Your task to perform on an android device: Open Yahoo.com Image 0: 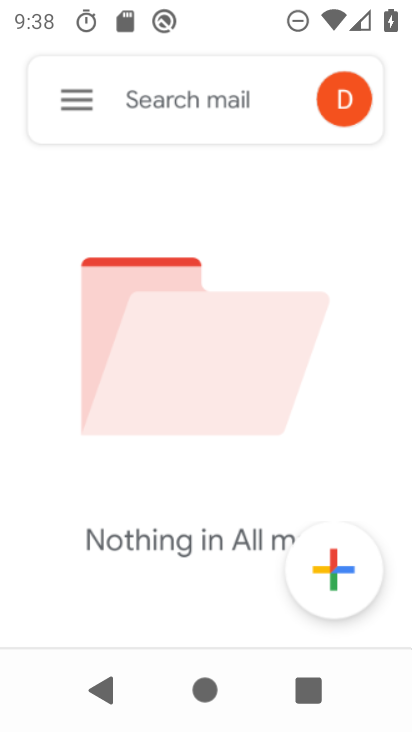
Step 0: press home button
Your task to perform on an android device: Open Yahoo.com Image 1: 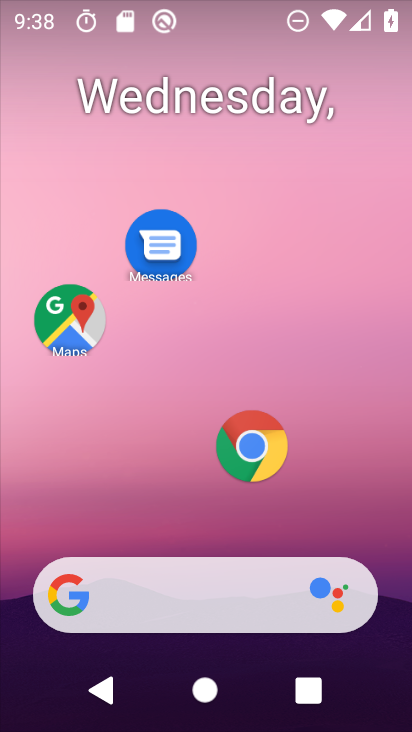
Step 1: click (242, 439)
Your task to perform on an android device: Open Yahoo.com Image 2: 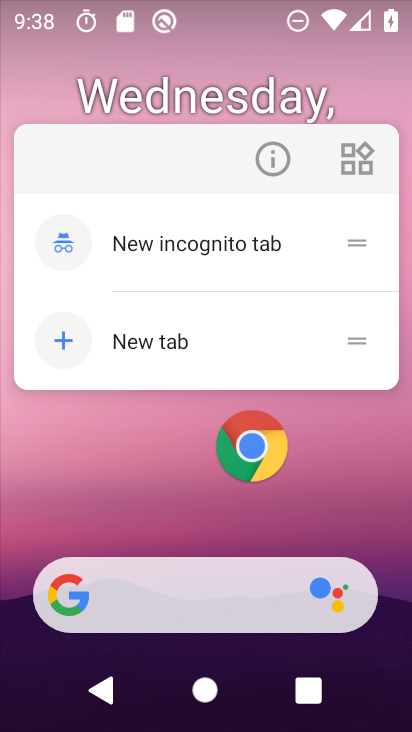
Step 2: click (254, 443)
Your task to perform on an android device: Open Yahoo.com Image 3: 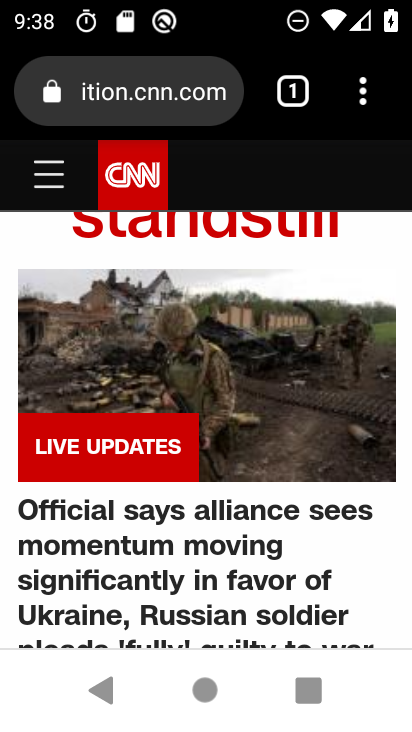
Step 3: click (299, 95)
Your task to perform on an android device: Open Yahoo.com Image 4: 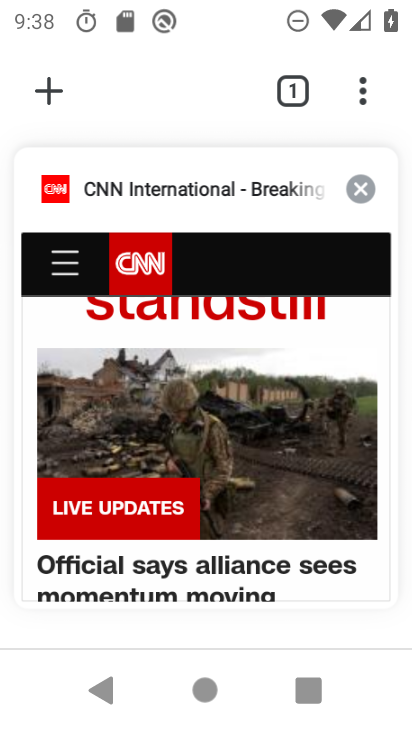
Step 4: click (60, 89)
Your task to perform on an android device: Open Yahoo.com Image 5: 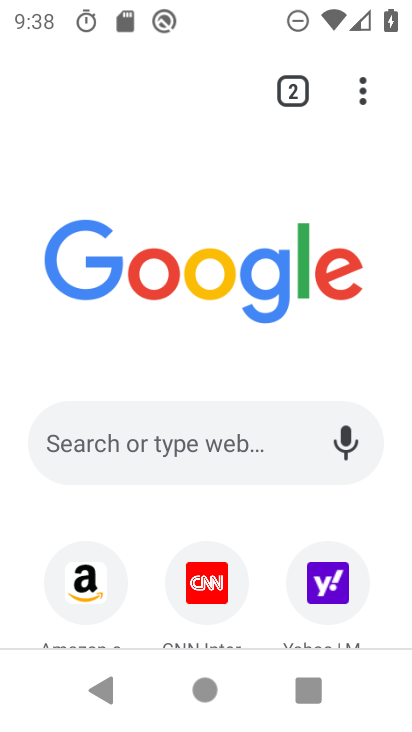
Step 5: click (337, 579)
Your task to perform on an android device: Open Yahoo.com Image 6: 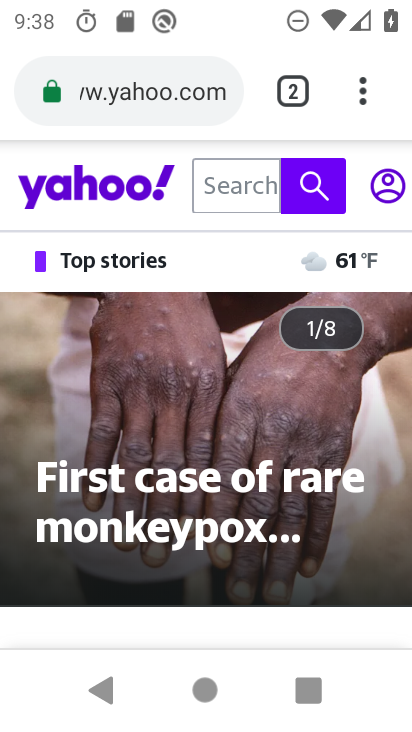
Step 6: task complete